Your task to perform on an android device: check data usage Image 0: 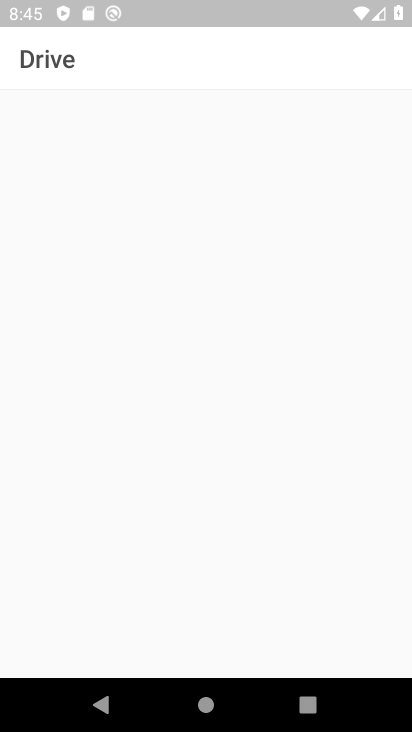
Step 0: press home button
Your task to perform on an android device: check data usage Image 1: 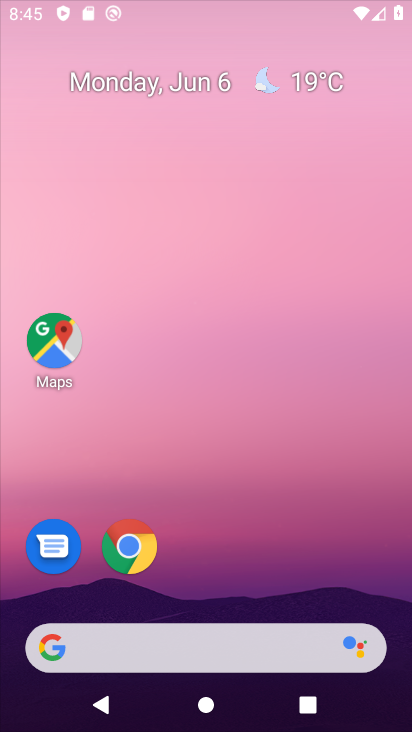
Step 1: drag from (160, 723) to (278, 292)
Your task to perform on an android device: check data usage Image 2: 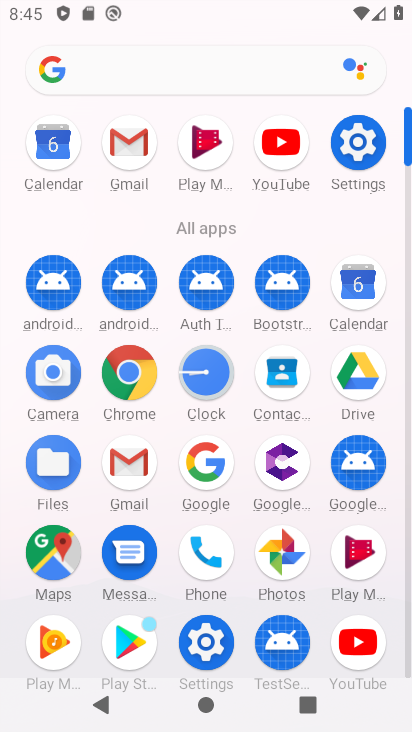
Step 2: click (336, 158)
Your task to perform on an android device: check data usage Image 3: 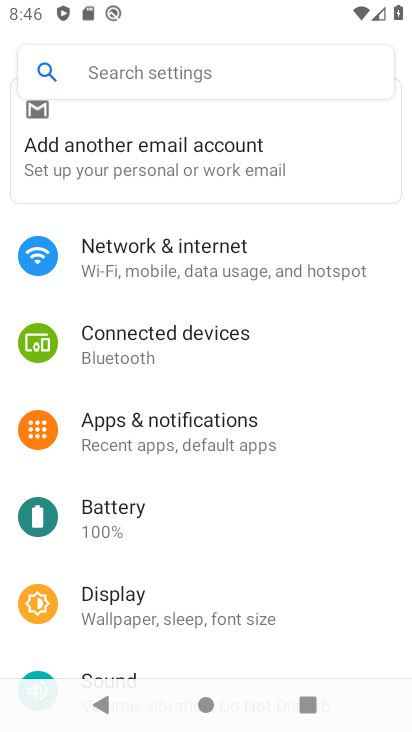
Step 3: click (180, 251)
Your task to perform on an android device: check data usage Image 4: 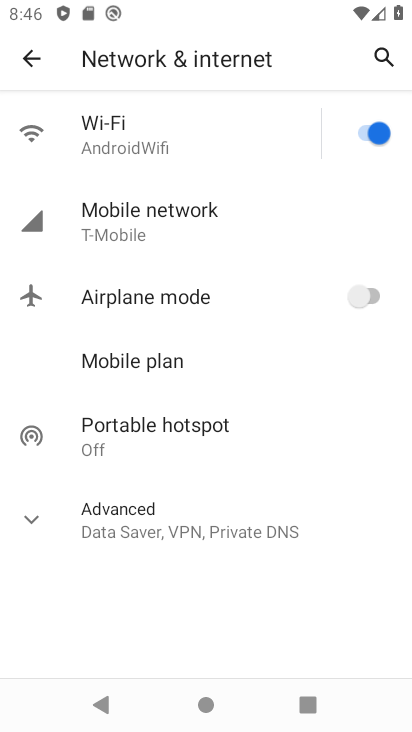
Step 4: click (110, 204)
Your task to perform on an android device: check data usage Image 5: 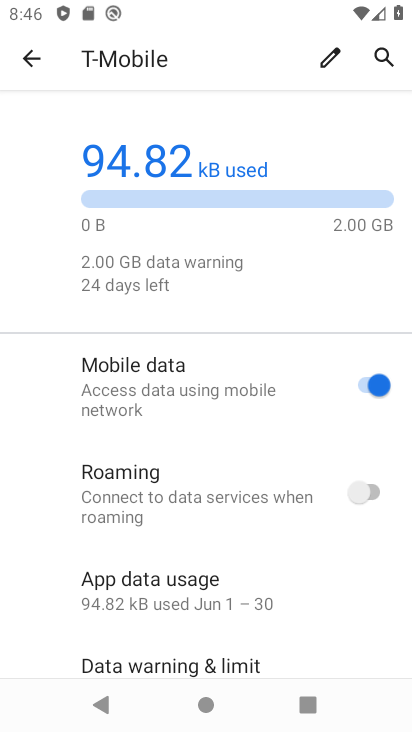
Step 5: task complete